Your task to perform on an android device: move an email to a new category in the gmail app Image 0: 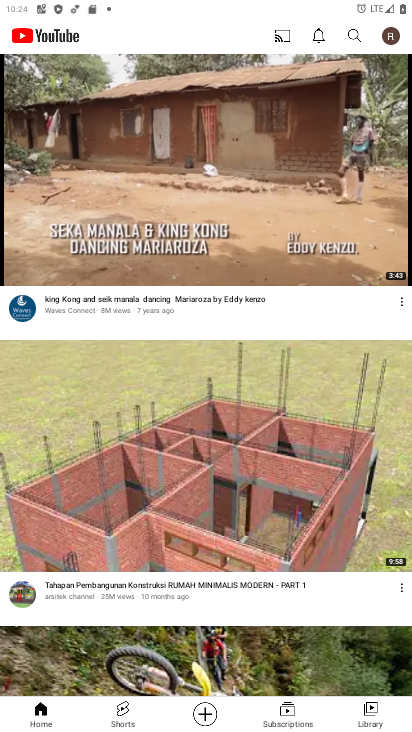
Step 0: drag from (249, 593) to (395, 293)
Your task to perform on an android device: move an email to a new category in the gmail app Image 1: 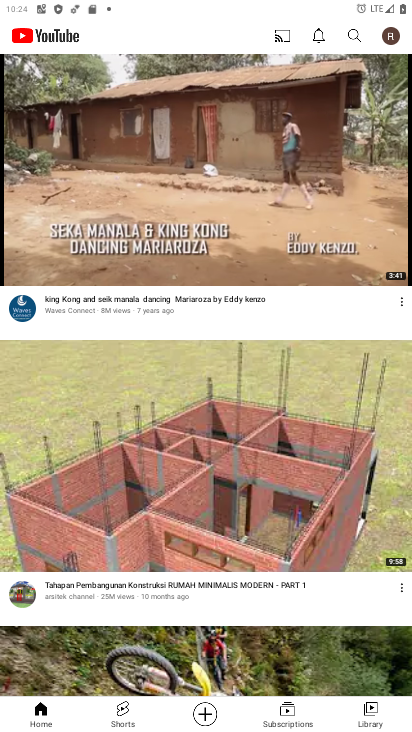
Step 1: press home button
Your task to perform on an android device: move an email to a new category in the gmail app Image 2: 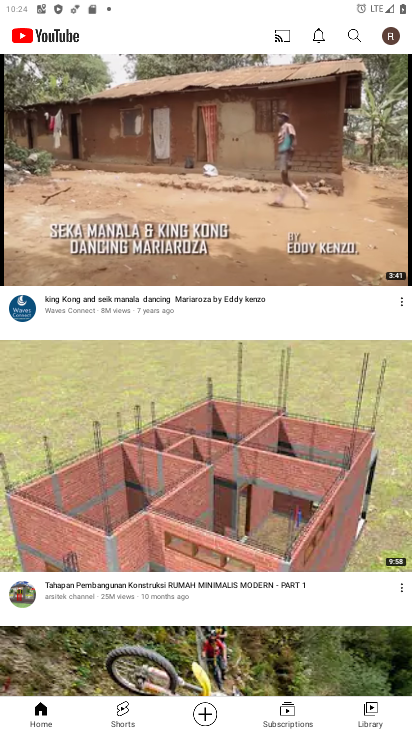
Step 2: click (402, 533)
Your task to perform on an android device: move an email to a new category in the gmail app Image 3: 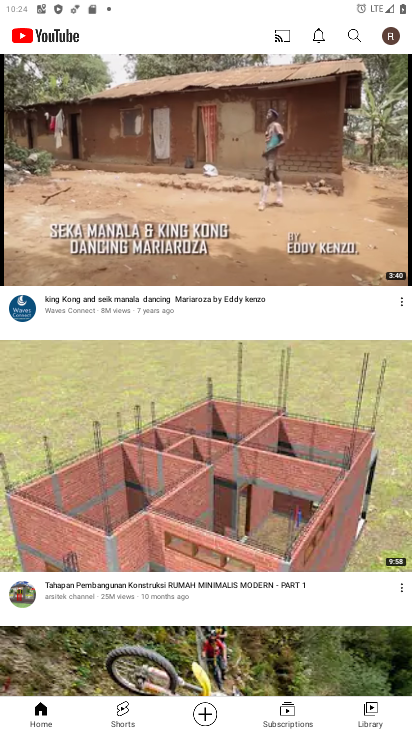
Step 3: drag from (200, 505) to (293, 97)
Your task to perform on an android device: move an email to a new category in the gmail app Image 4: 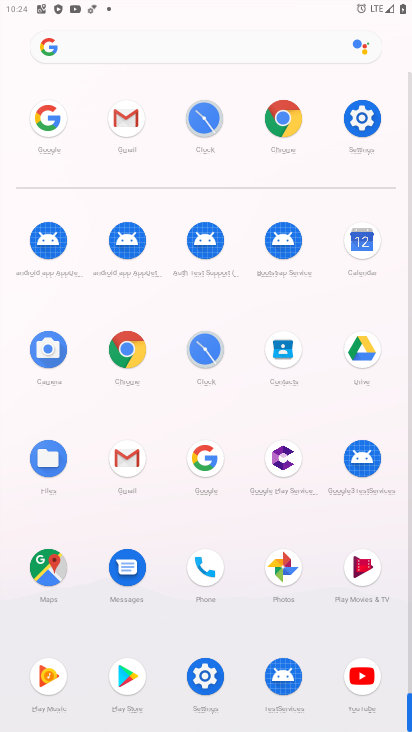
Step 4: click (97, 456)
Your task to perform on an android device: move an email to a new category in the gmail app Image 5: 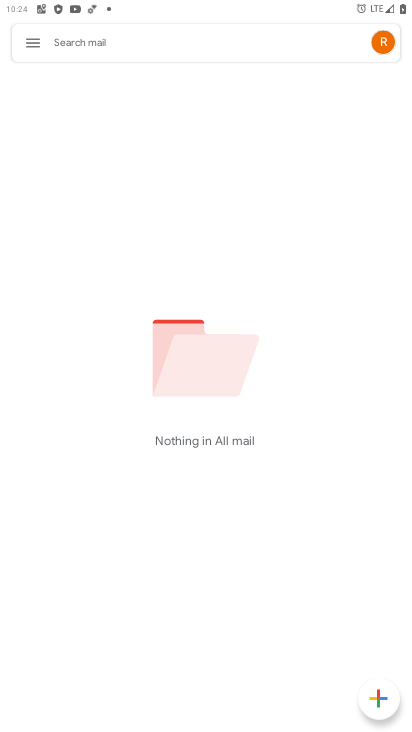
Step 5: task complete